Your task to perform on an android device: toggle notification dots Image 0: 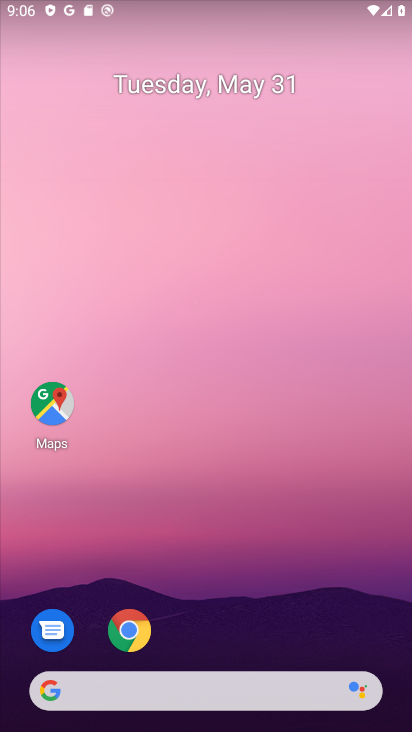
Step 0: drag from (136, 719) to (98, 57)
Your task to perform on an android device: toggle notification dots Image 1: 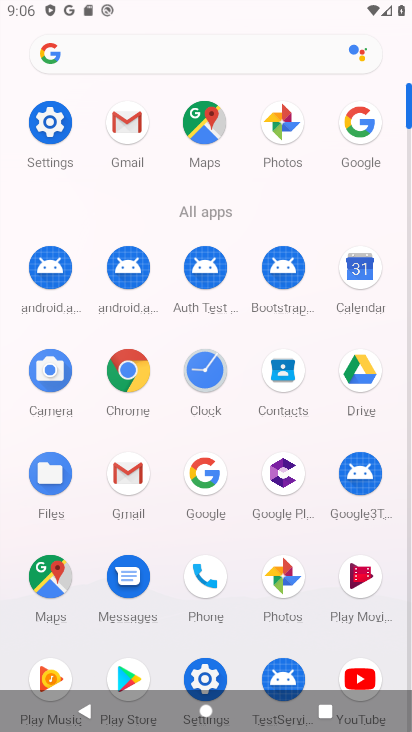
Step 1: click (57, 136)
Your task to perform on an android device: toggle notification dots Image 2: 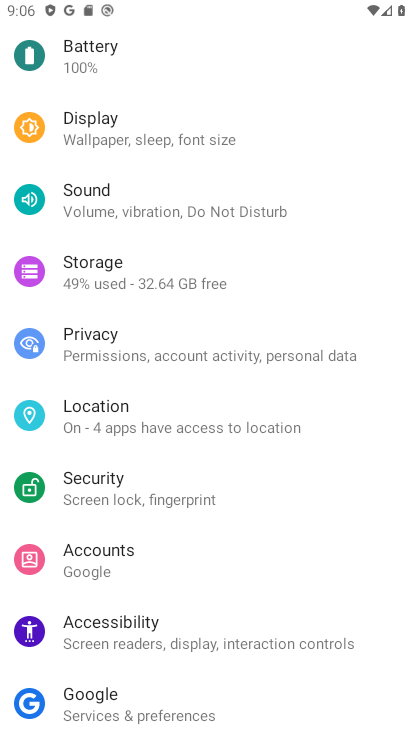
Step 2: drag from (174, 121) to (235, 600)
Your task to perform on an android device: toggle notification dots Image 3: 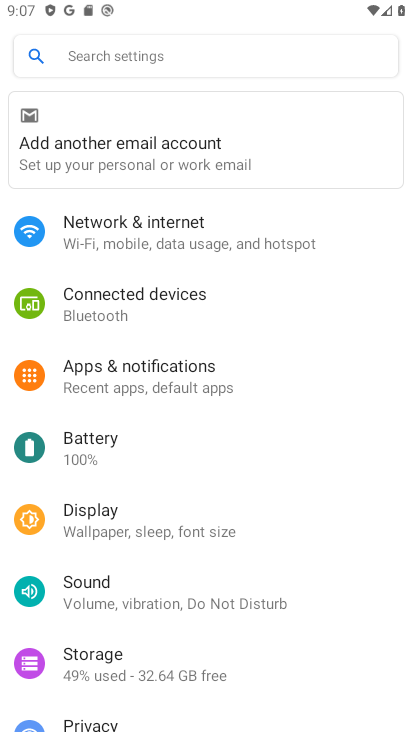
Step 3: click (173, 383)
Your task to perform on an android device: toggle notification dots Image 4: 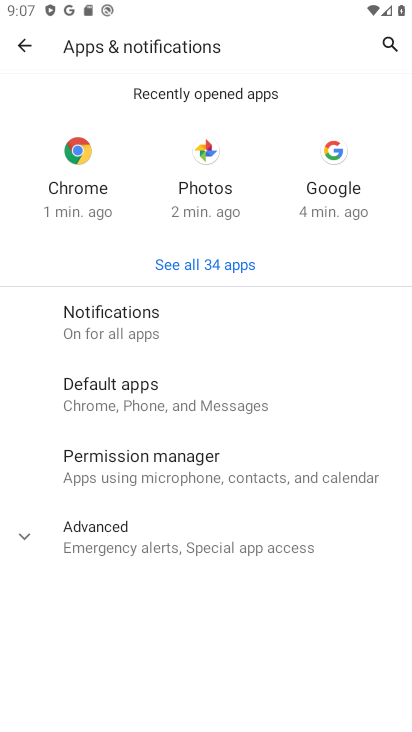
Step 4: click (141, 331)
Your task to perform on an android device: toggle notification dots Image 5: 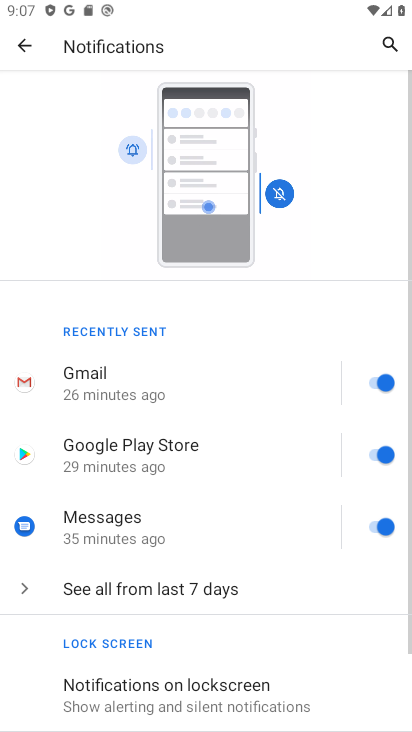
Step 5: drag from (300, 671) to (263, 132)
Your task to perform on an android device: toggle notification dots Image 6: 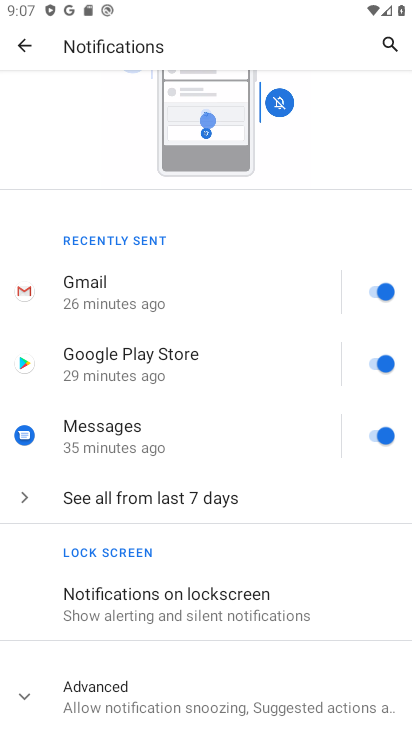
Step 6: click (202, 705)
Your task to perform on an android device: toggle notification dots Image 7: 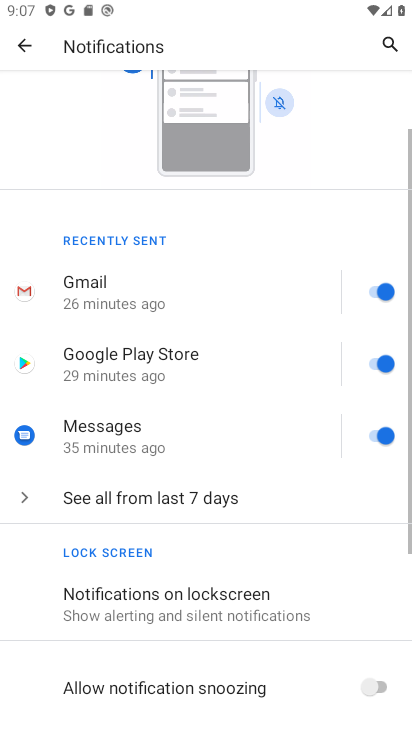
Step 7: drag from (273, 635) to (284, 258)
Your task to perform on an android device: toggle notification dots Image 8: 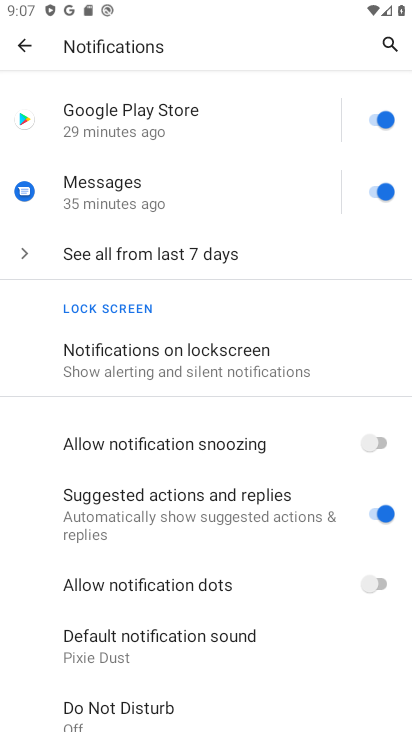
Step 8: click (382, 588)
Your task to perform on an android device: toggle notification dots Image 9: 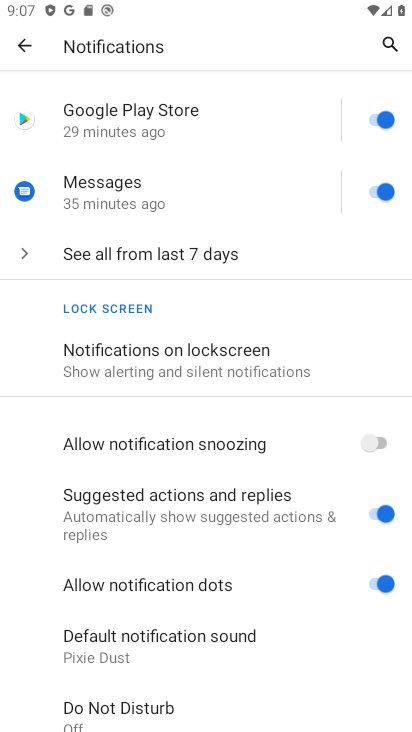
Step 9: task complete